Your task to perform on an android device: Turn on the flashlight Image 0: 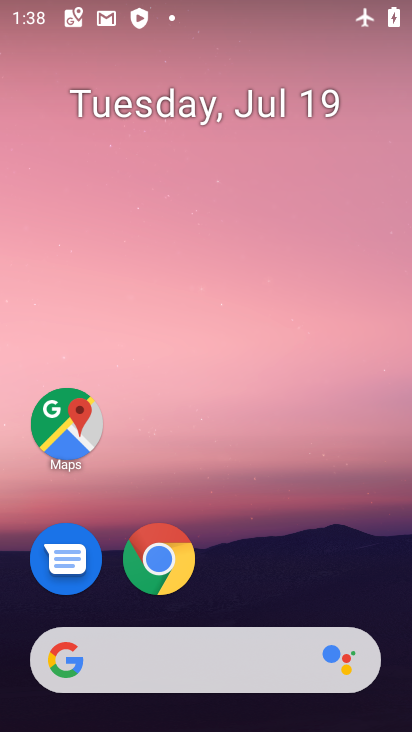
Step 0: drag from (226, 1) to (251, 503)
Your task to perform on an android device: Turn on the flashlight Image 1: 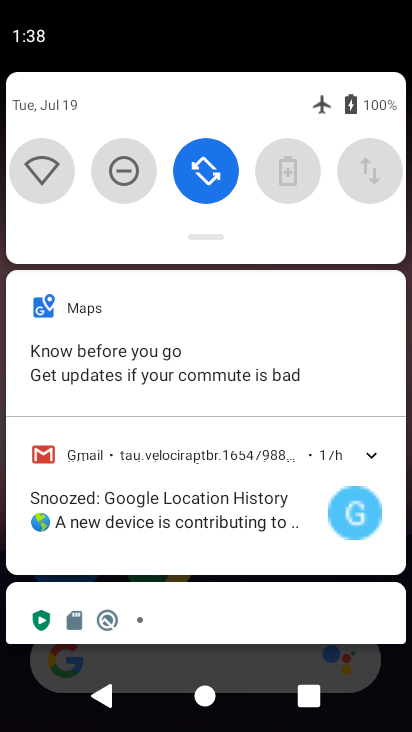
Step 1: drag from (265, 191) to (266, 594)
Your task to perform on an android device: Turn on the flashlight Image 2: 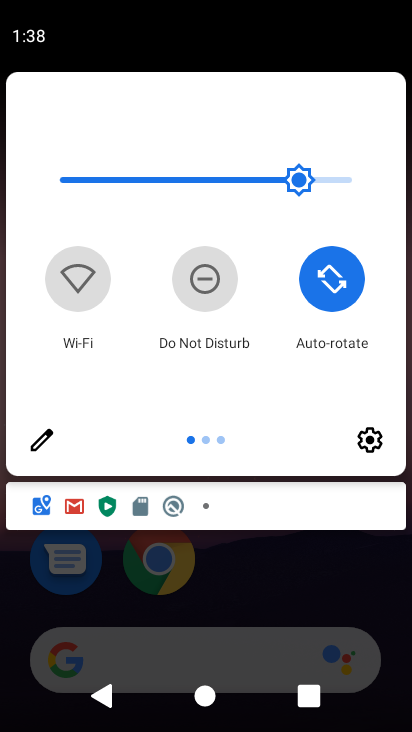
Step 2: drag from (307, 350) to (6, 370)
Your task to perform on an android device: Turn on the flashlight Image 3: 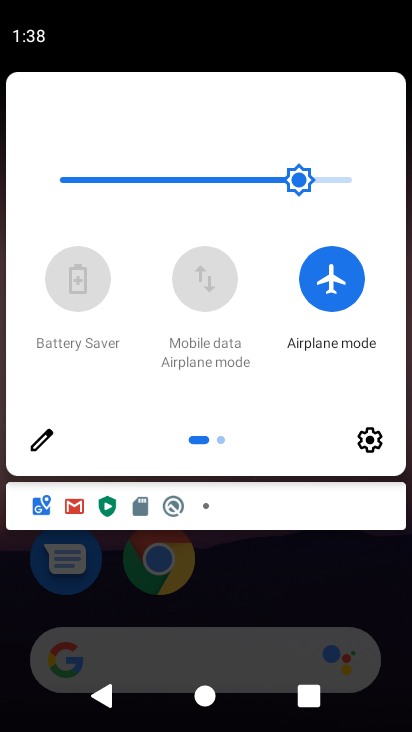
Step 3: drag from (341, 353) to (5, 408)
Your task to perform on an android device: Turn on the flashlight Image 4: 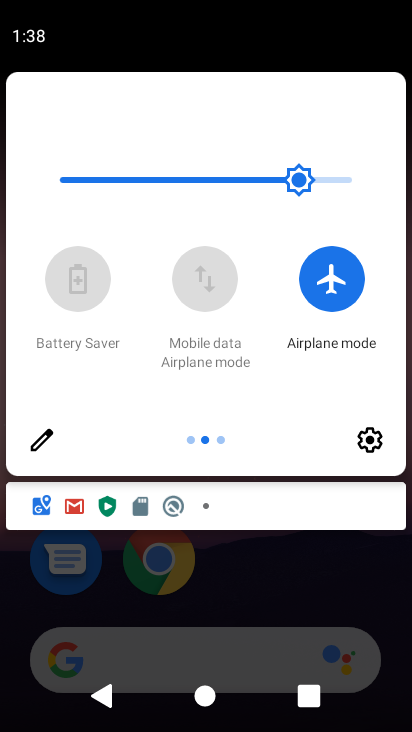
Step 4: drag from (309, 324) to (1, 380)
Your task to perform on an android device: Turn on the flashlight Image 5: 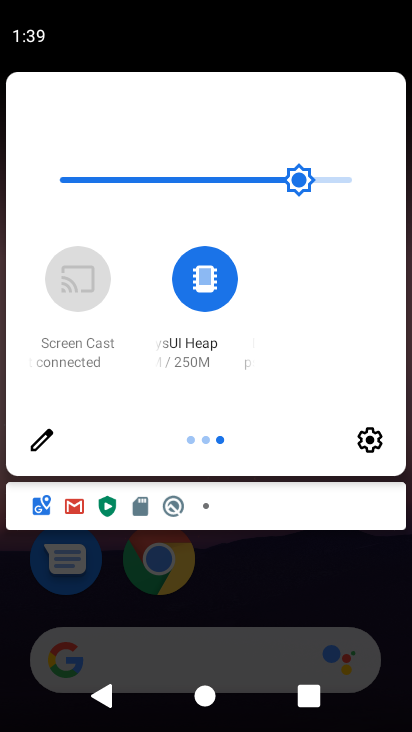
Step 5: click (32, 443)
Your task to perform on an android device: Turn on the flashlight Image 6: 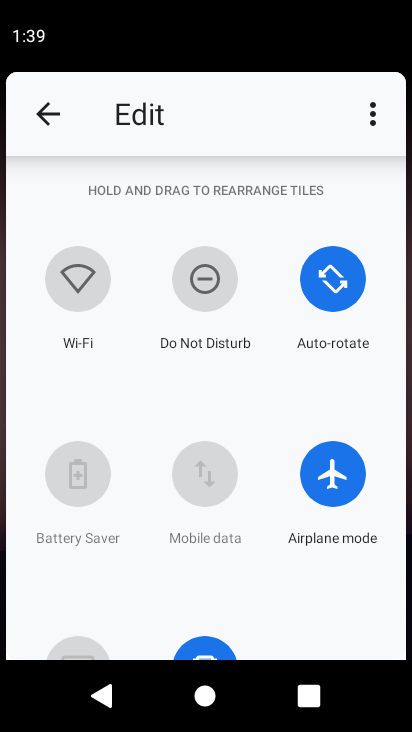
Step 6: task complete